Your task to perform on an android device: show emergency info Image 0: 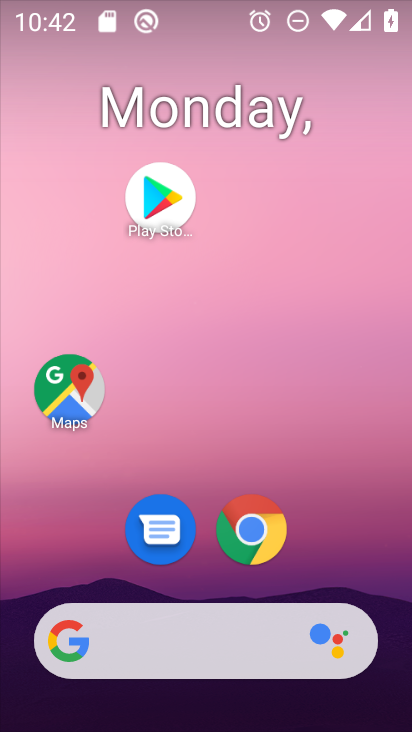
Step 0: drag from (328, 528) to (251, 26)
Your task to perform on an android device: show emergency info Image 1: 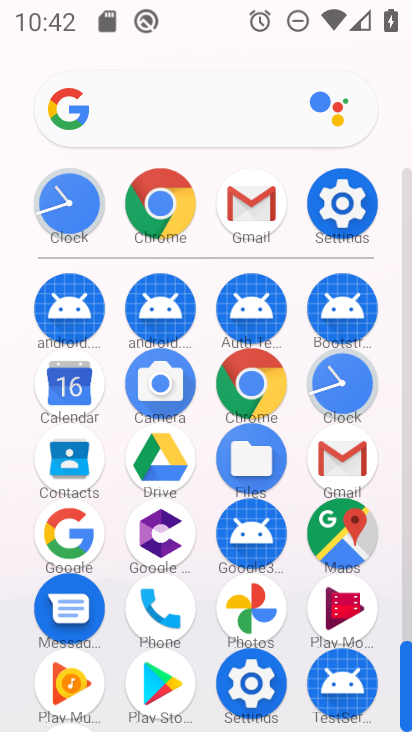
Step 1: click (342, 200)
Your task to perform on an android device: show emergency info Image 2: 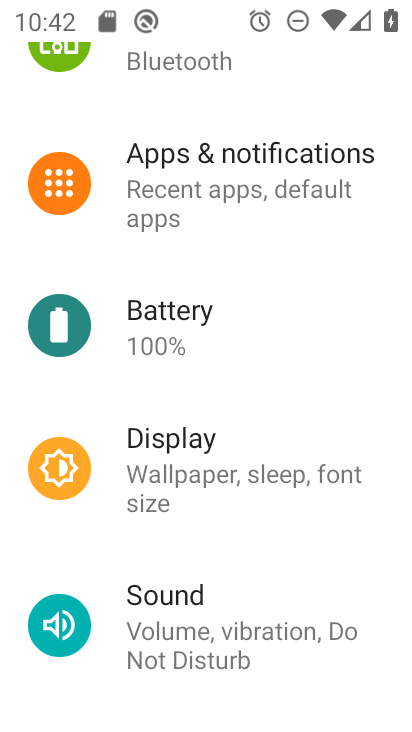
Step 2: click (191, 202)
Your task to perform on an android device: show emergency info Image 3: 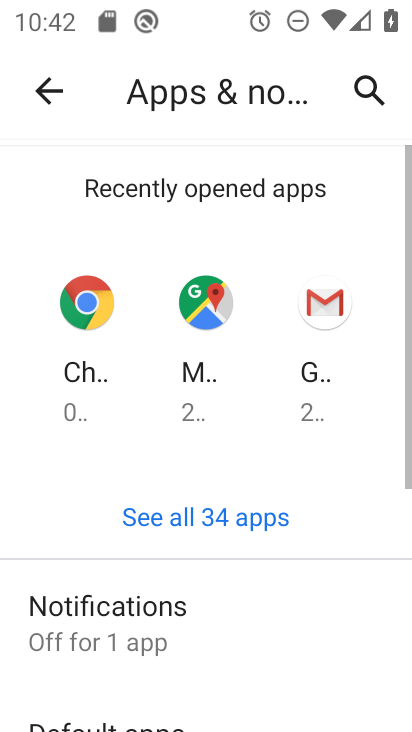
Step 3: drag from (257, 547) to (235, 277)
Your task to perform on an android device: show emergency info Image 4: 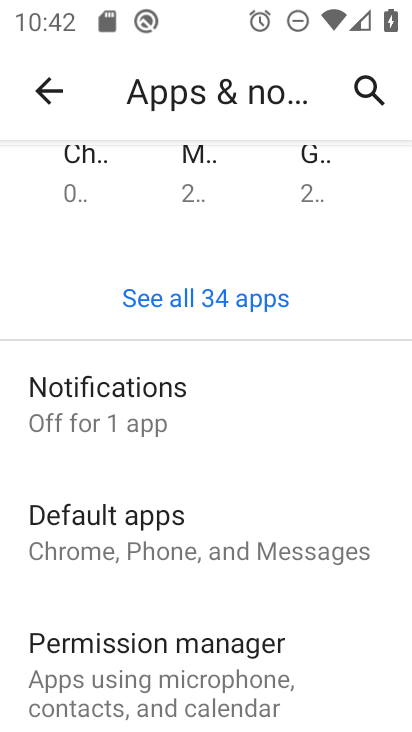
Step 4: click (45, 104)
Your task to perform on an android device: show emergency info Image 5: 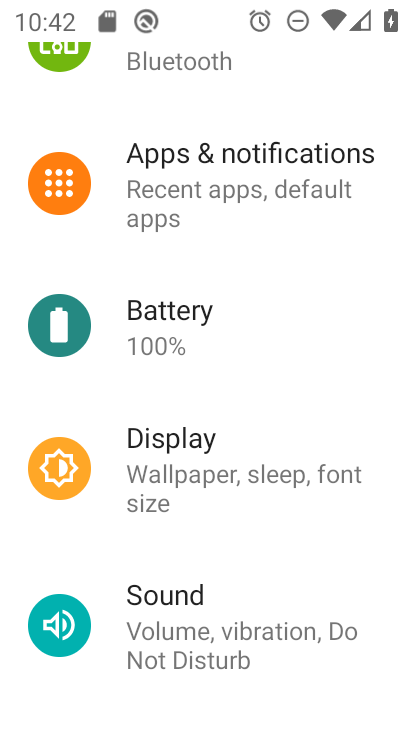
Step 5: drag from (249, 562) to (201, 259)
Your task to perform on an android device: show emergency info Image 6: 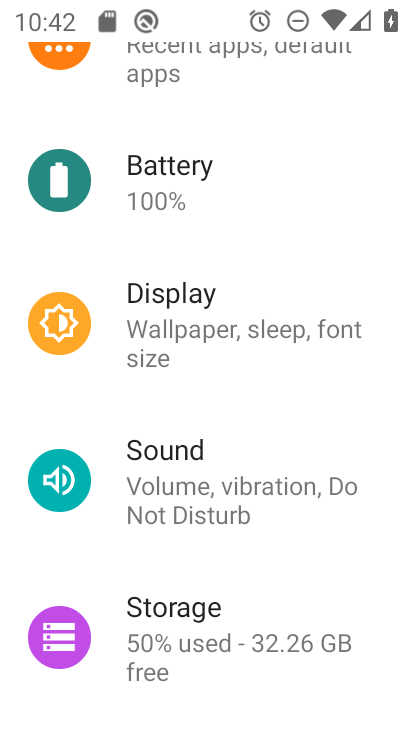
Step 6: drag from (238, 555) to (197, 73)
Your task to perform on an android device: show emergency info Image 7: 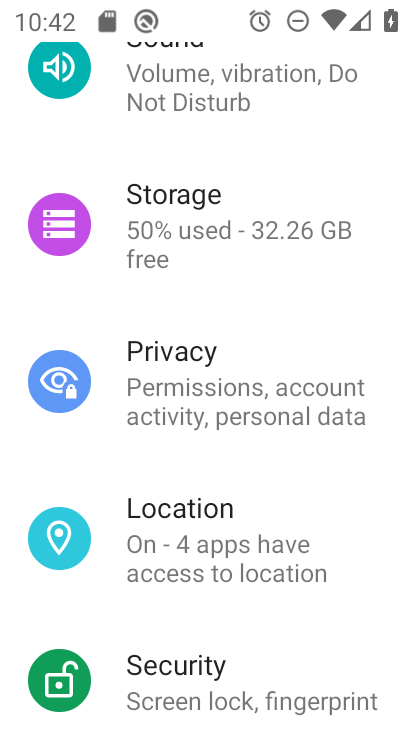
Step 7: drag from (265, 620) to (240, 80)
Your task to perform on an android device: show emergency info Image 8: 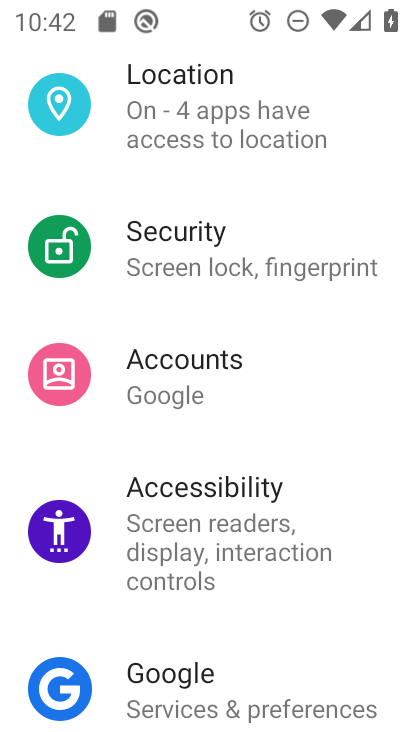
Step 8: drag from (270, 621) to (223, 279)
Your task to perform on an android device: show emergency info Image 9: 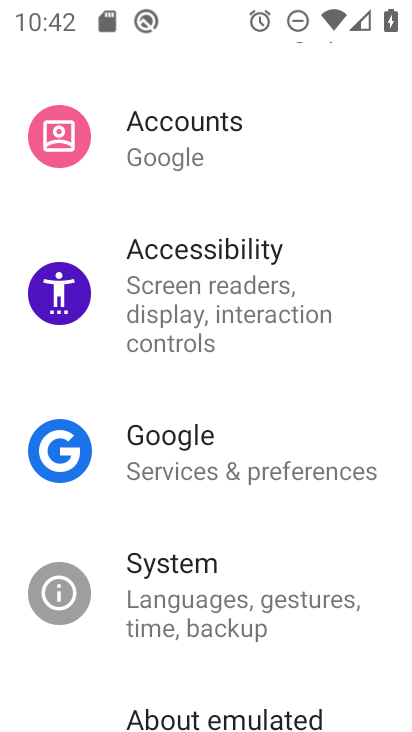
Step 9: drag from (242, 426) to (213, 219)
Your task to perform on an android device: show emergency info Image 10: 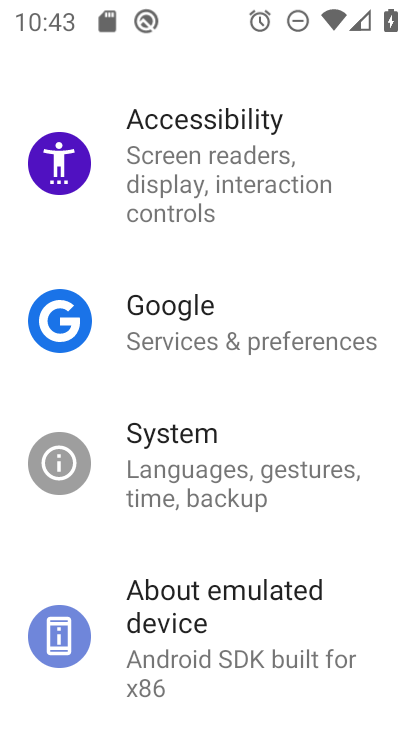
Step 10: click (195, 589)
Your task to perform on an android device: show emergency info Image 11: 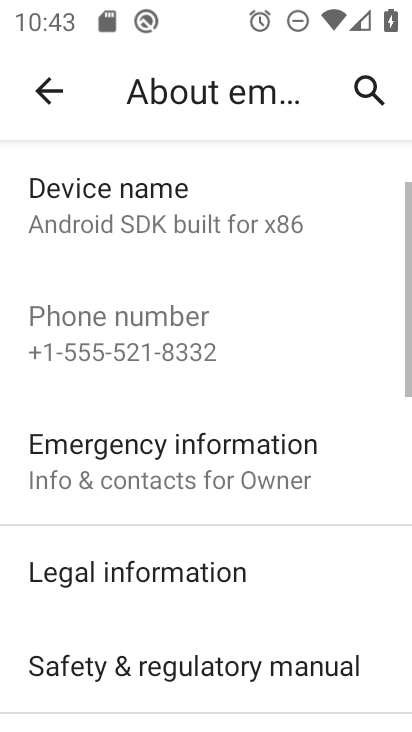
Step 11: click (194, 449)
Your task to perform on an android device: show emergency info Image 12: 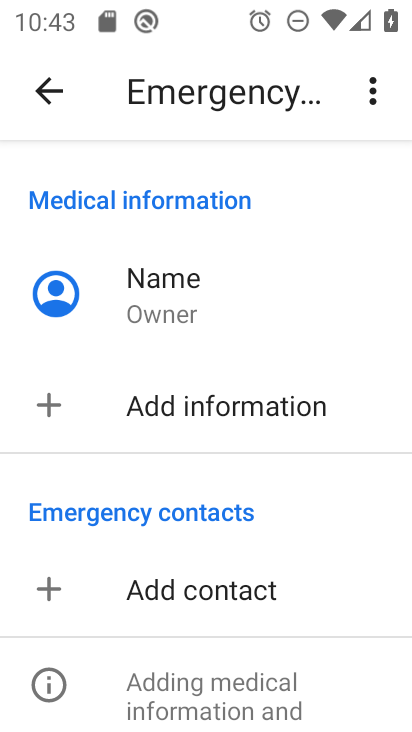
Step 12: task complete